Your task to perform on an android device: See recent photos Image 0: 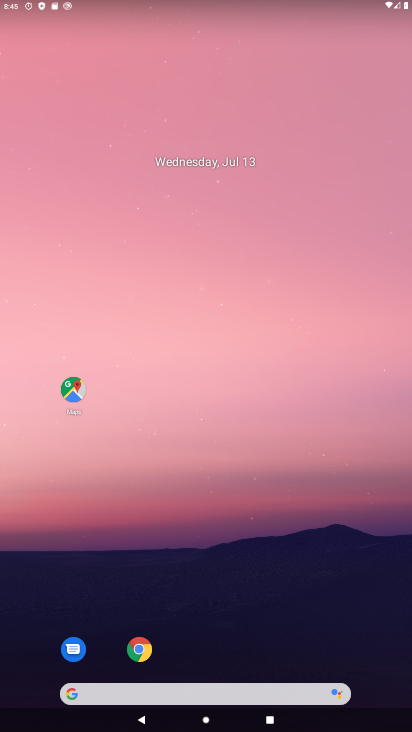
Step 0: drag from (291, 688) to (352, 10)
Your task to perform on an android device: See recent photos Image 1: 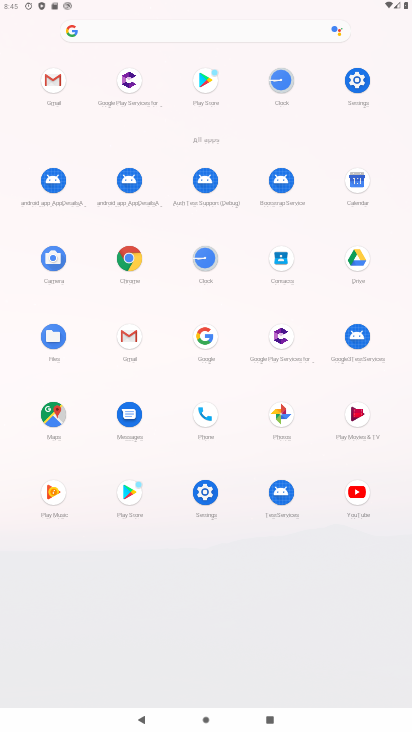
Step 1: click (280, 411)
Your task to perform on an android device: See recent photos Image 2: 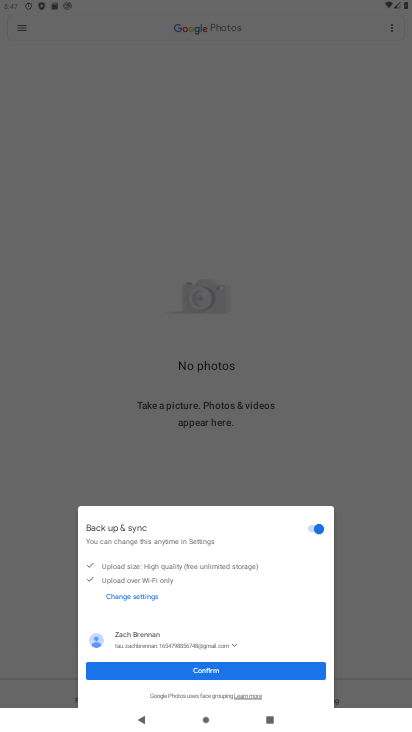
Step 2: press home button
Your task to perform on an android device: See recent photos Image 3: 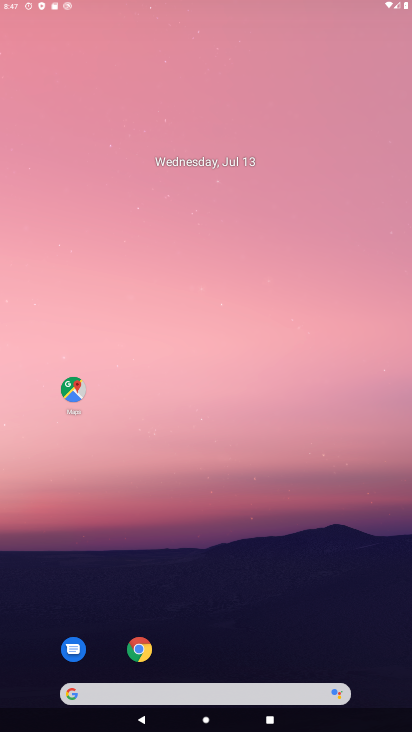
Step 3: drag from (205, 688) to (212, 144)
Your task to perform on an android device: See recent photos Image 4: 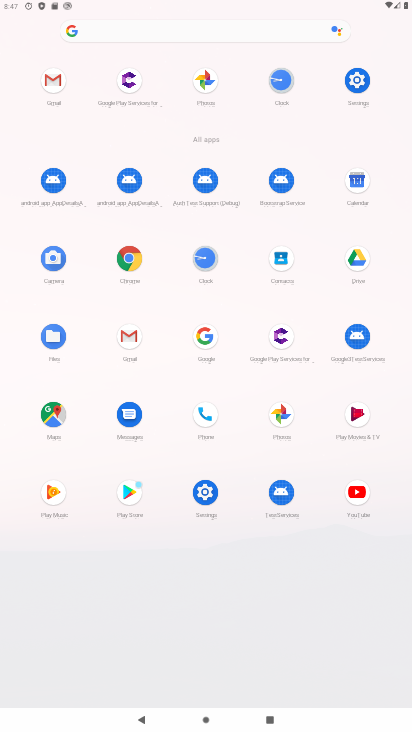
Step 4: click (285, 408)
Your task to perform on an android device: See recent photos Image 5: 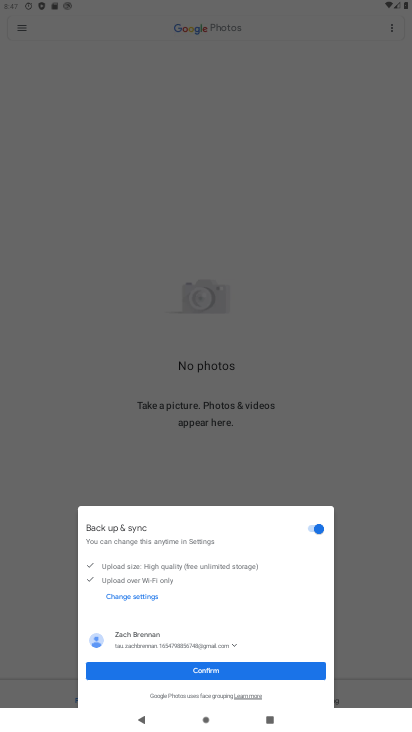
Step 5: click (229, 677)
Your task to perform on an android device: See recent photos Image 6: 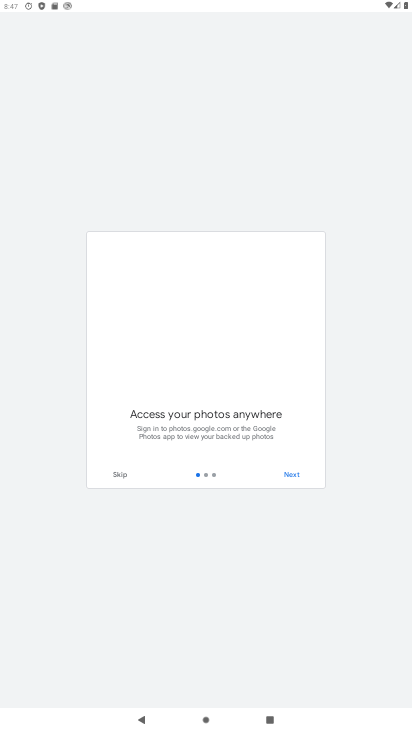
Step 6: click (289, 472)
Your task to perform on an android device: See recent photos Image 7: 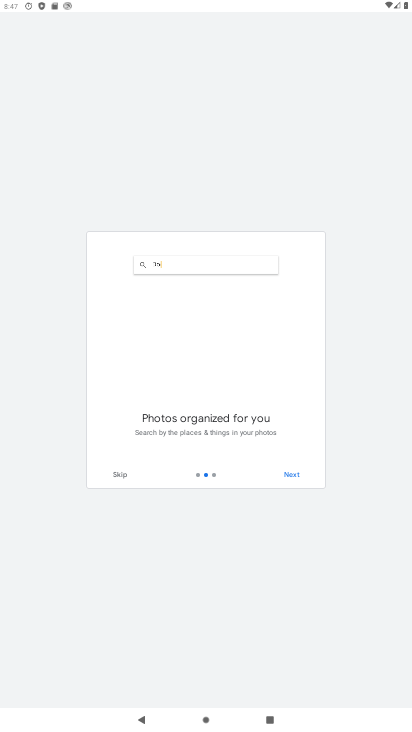
Step 7: click (290, 472)
Your task to perform on an android device: See recent photos Image 8: 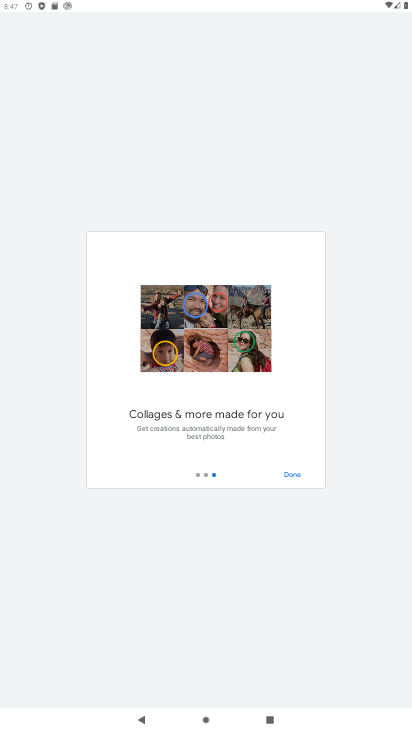
Step 8: click (290, 472)
Your task to perform on an android device: See recent photos Image 9: 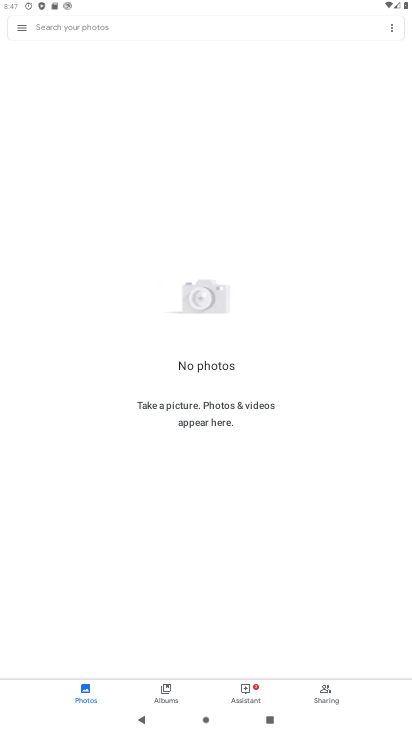
Step 9: task complete